Your task to perform on an android device: Go to display settings Image 0: 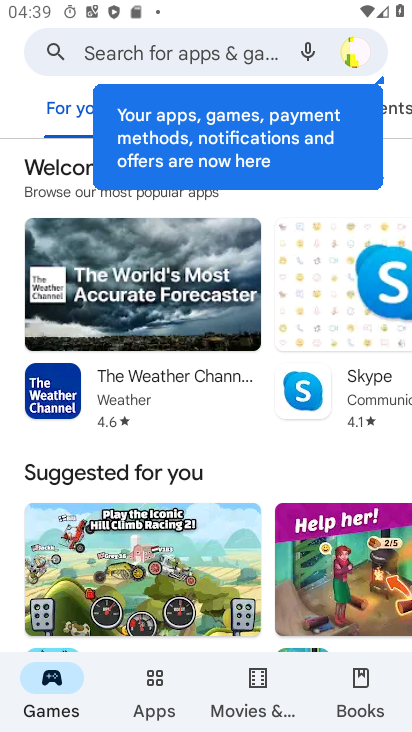
Step 0: press home button
Your task to perform on an android device: Go to display settings Image 1: 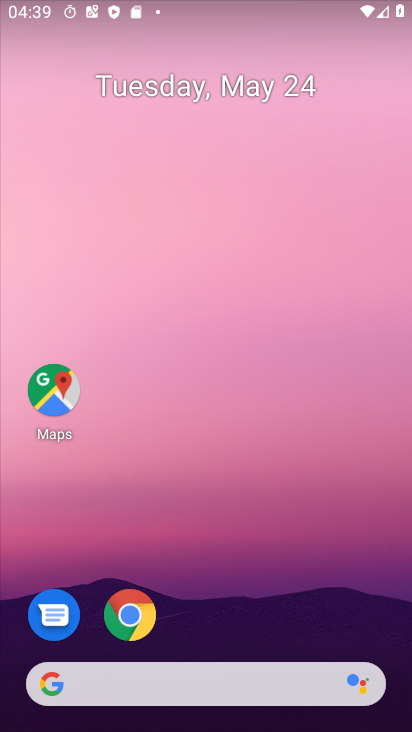
Step 1: drag from (216, 599) to (284, 52)
Your task to perform on an android device: Go to display settings Image 2: 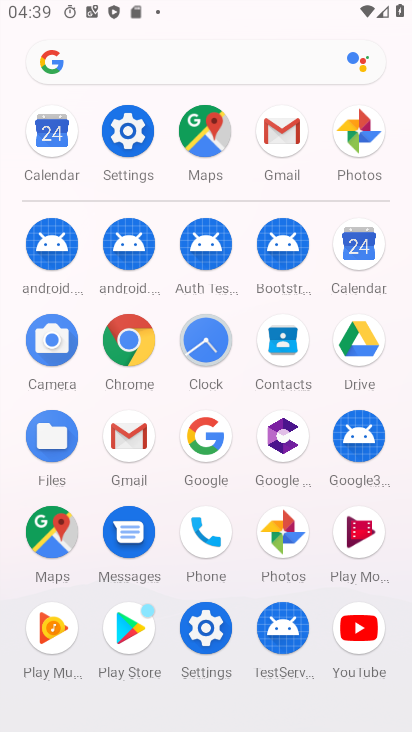
Step 2: click (130, 137)
Your task to perform on an android device: Go to display settings Image 3: 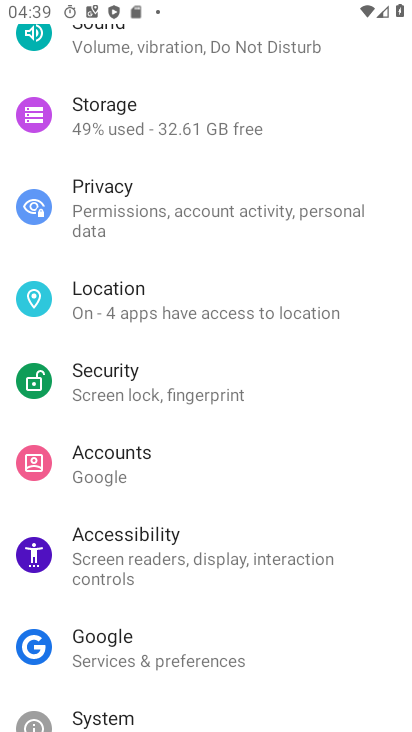
Step 3: drag from (189, 195) to (175, 581)
Your task to perform on an android device: Go to display settings Image 4: 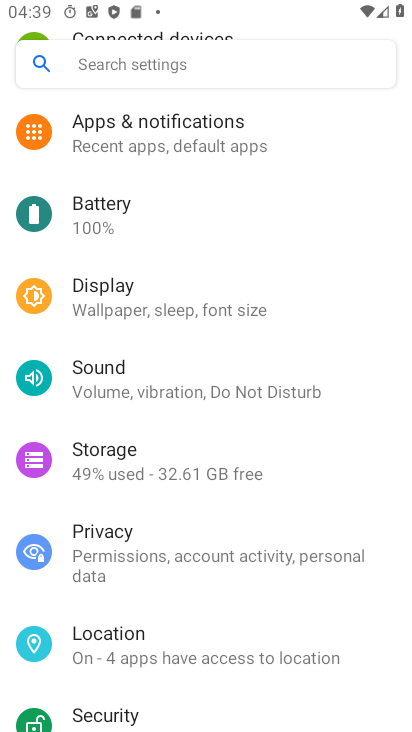
Step 4: click (125, 294)
Your task to perform on an android device: Go to display settings Image 5: 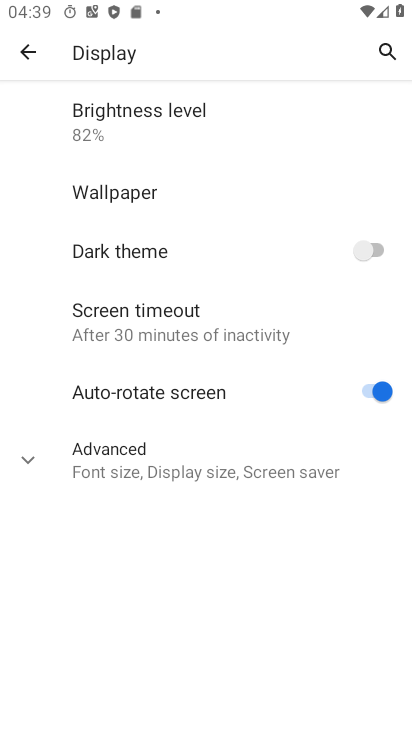
Step 5: task complete